Your task to perform on an android device: Open accessibility settings Image 0: 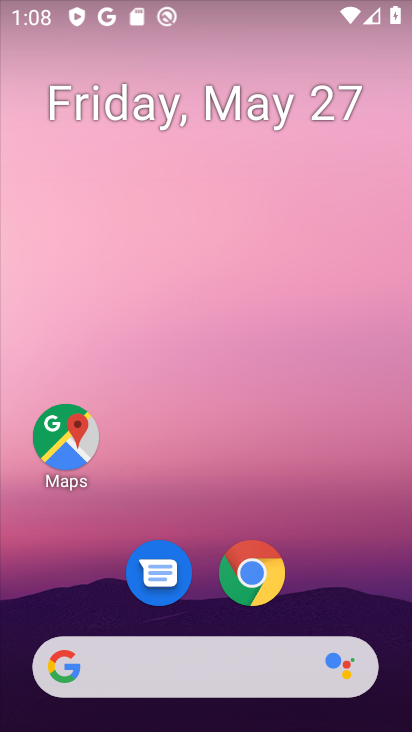
Step 0: drag from (183, 618) to (405, 479)
Your task to perform on an android device: Open accessibility settings Image 1: 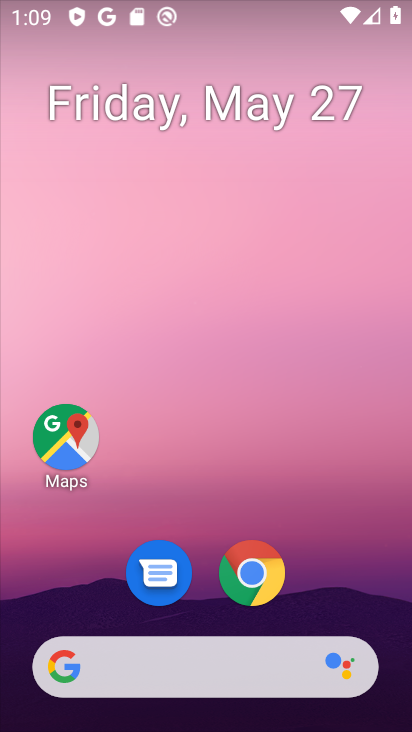
Step 1: drag from (226, 614) to (312, 16)
Your task to perform on an android device: Open accessibility settings Image 2: 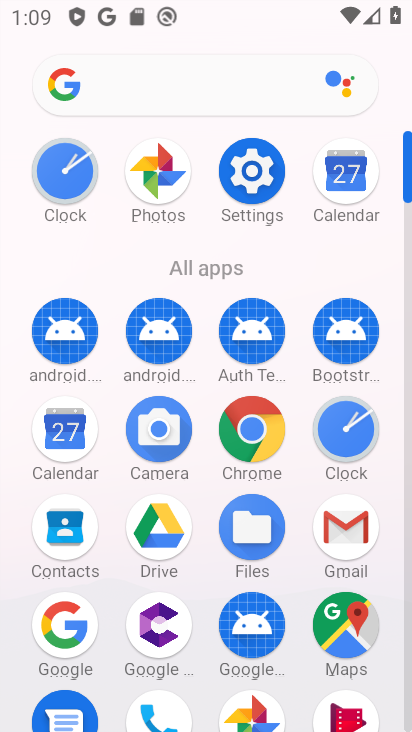
Step 2: click (254, 193)
Your task to perform on an android device: Open accessibility settings Image 3: 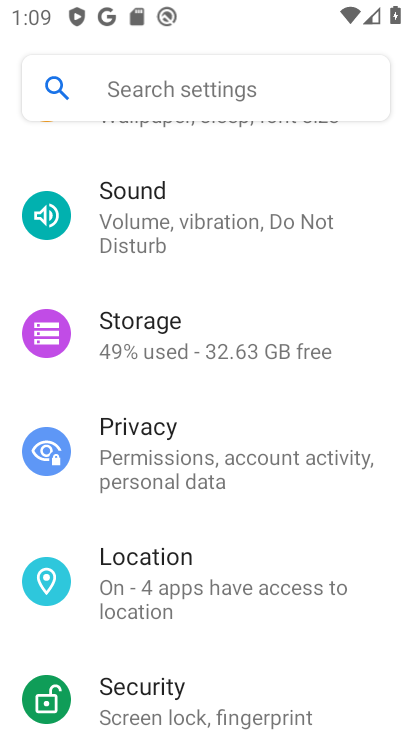
Step 3: drag from (294, 557) to (267, 115)
Your task to perform on an android device: Open accessibility settings Image 4: 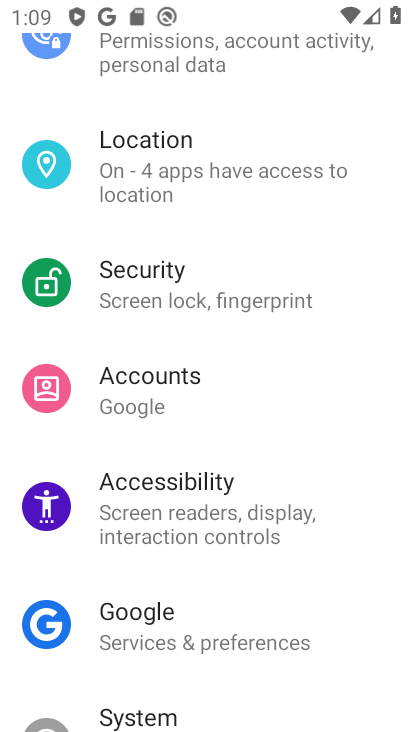
Step 4: click (211, 503)
Your task to perform on an android device: Open accessibility settings Image 5: 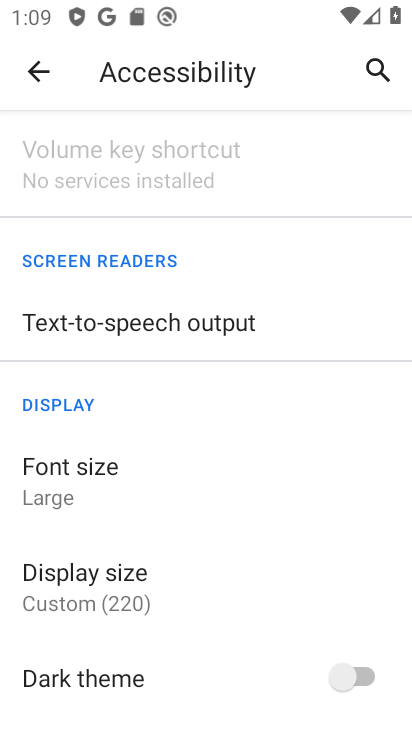
Step 5: task complete